Your task to perform on an android device: Empty the shopping cart on bestbuy. Image 0: 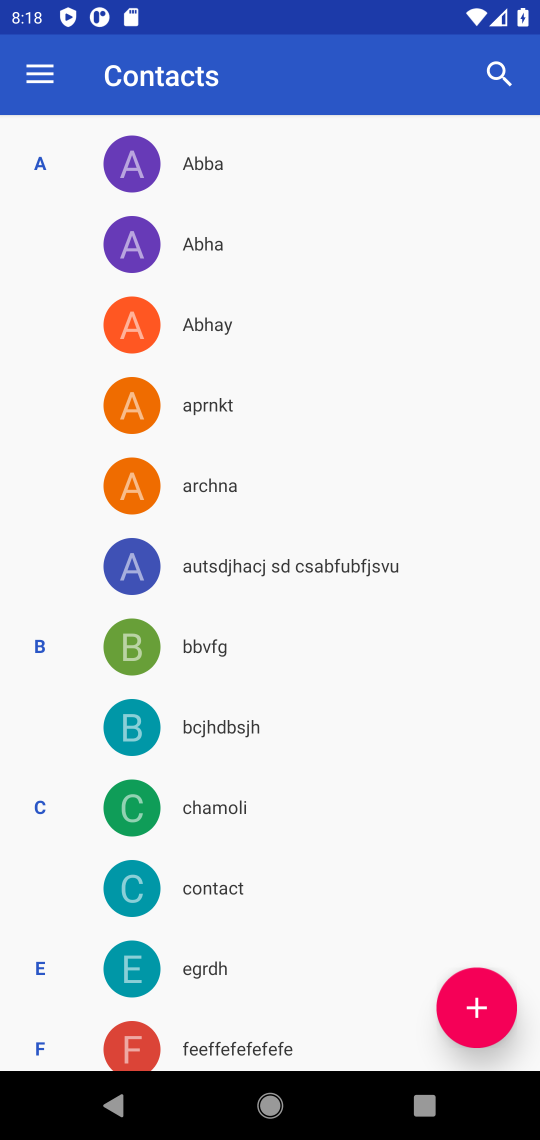
Step 0: press home button
Your task to perform on an android device: Empty the shopping cart on bestbuy. Image 1: 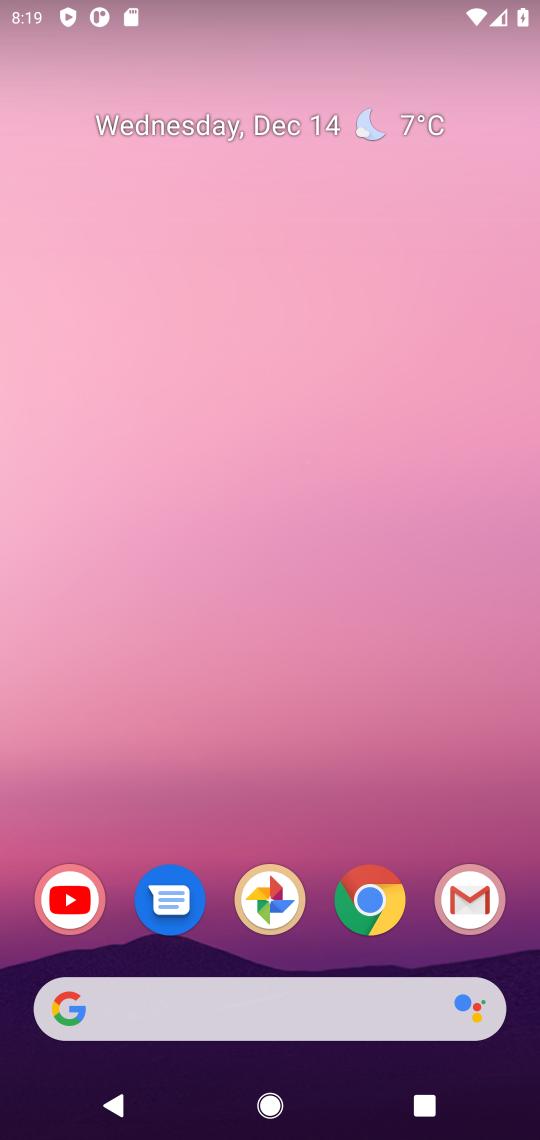
Step 1: click (254, 998)
Your task to perform on an android device: Empty the shopping cart on bestbuy. Image 2: 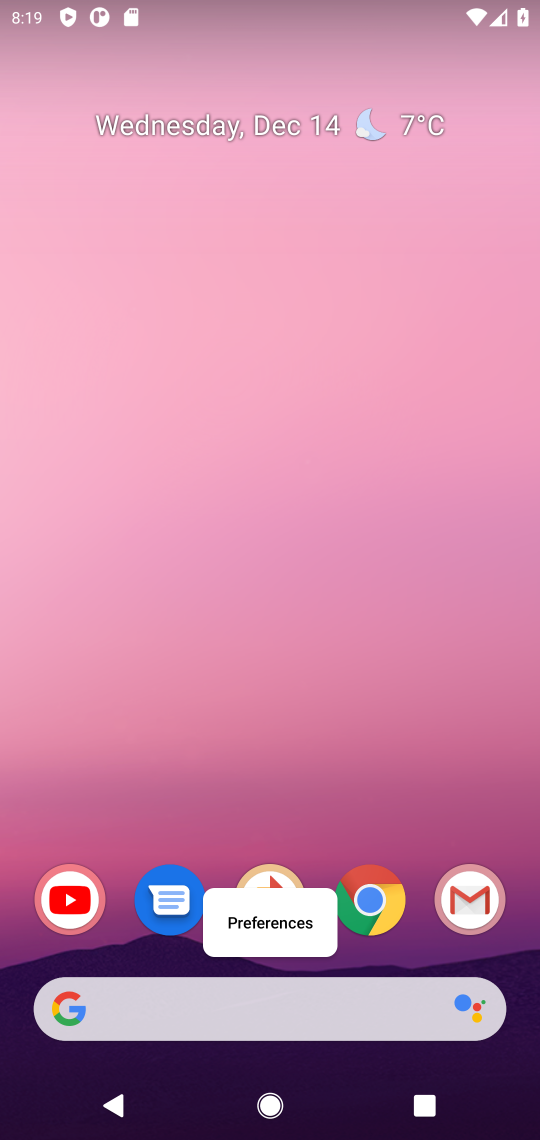
Step 2: click (267, 997)
Your task to perform on an android device: Empty the shopping cart on bestbuy. Image 3: 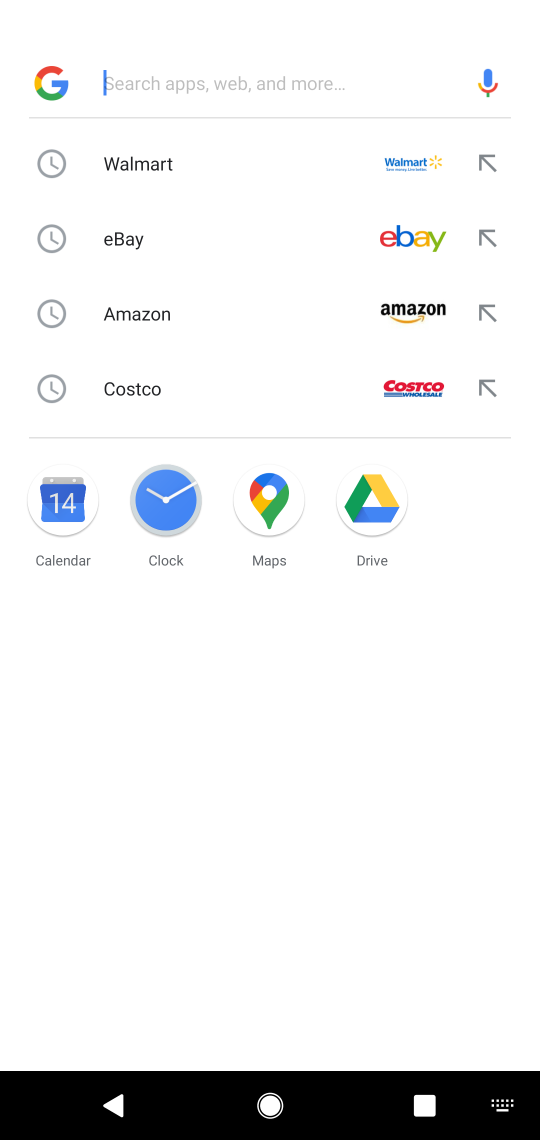
Step 3: type "bestbuy"
Your task to perform on an android device: Empty the shopping cart on bestbuy. Image 4: 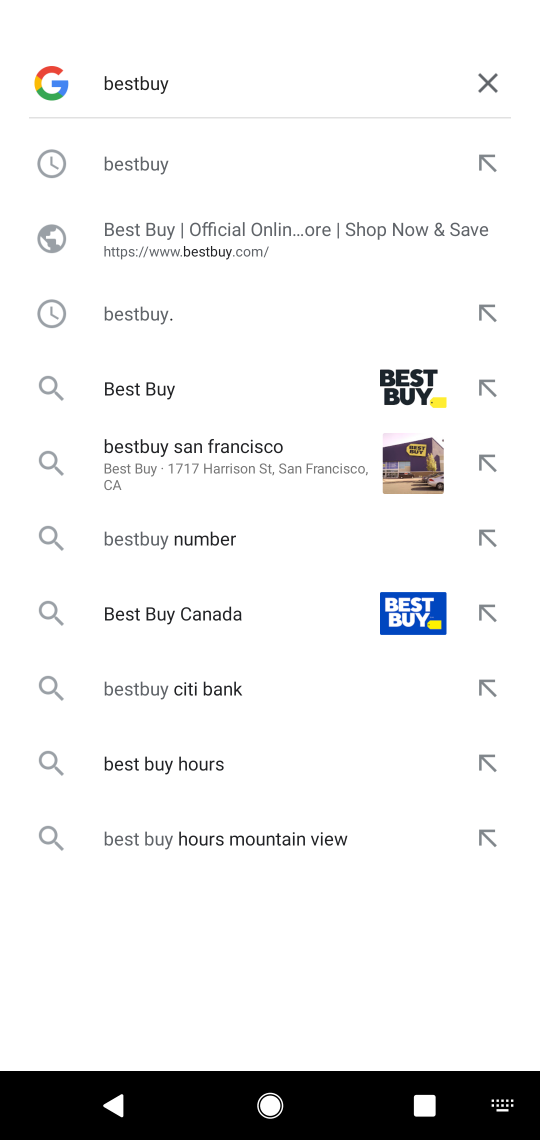
Step 4: type ""
Your task to perform on an android device: Empty the shopping cart on bestbuy. Image 5: 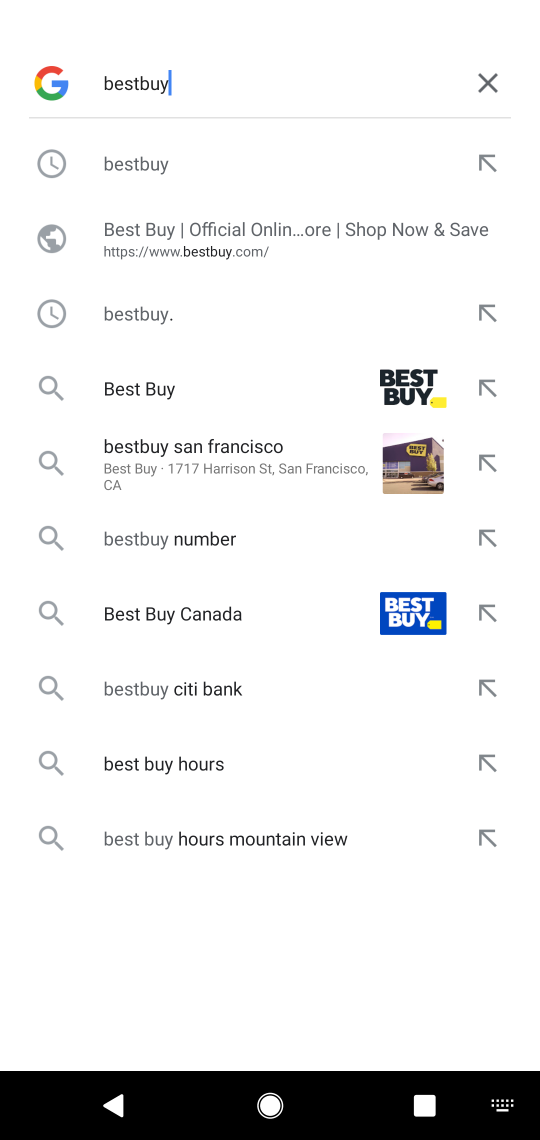
Step 5: click (167, 180)
Your task to perform on an android device: Empty the shopping cart on bestbuy. Image 6: 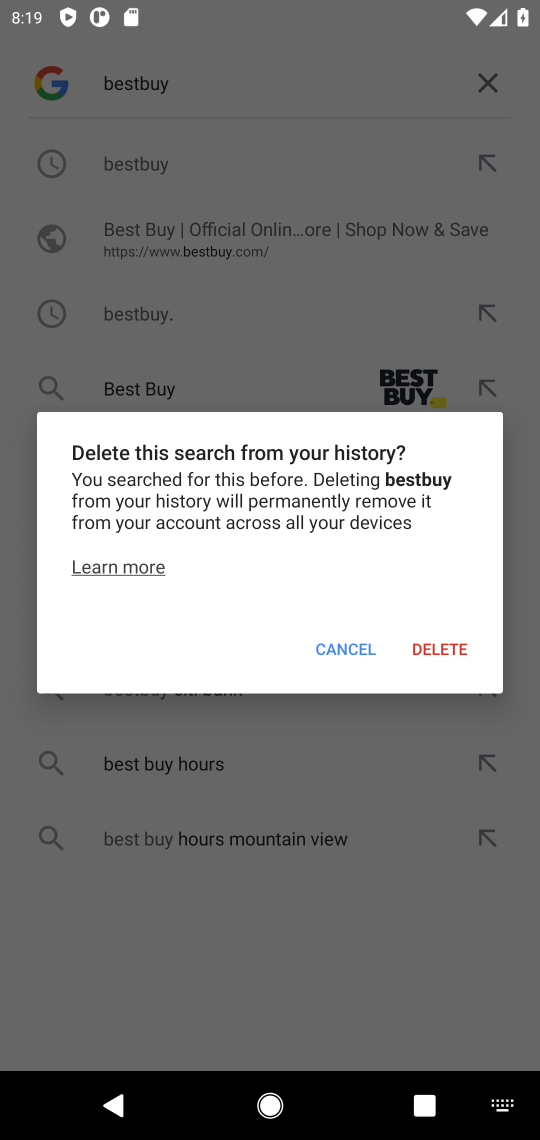
Step 6: click (352, 656)
Your task to perform on an android device: Empty the shopping cart on bestbuy. Image 7: 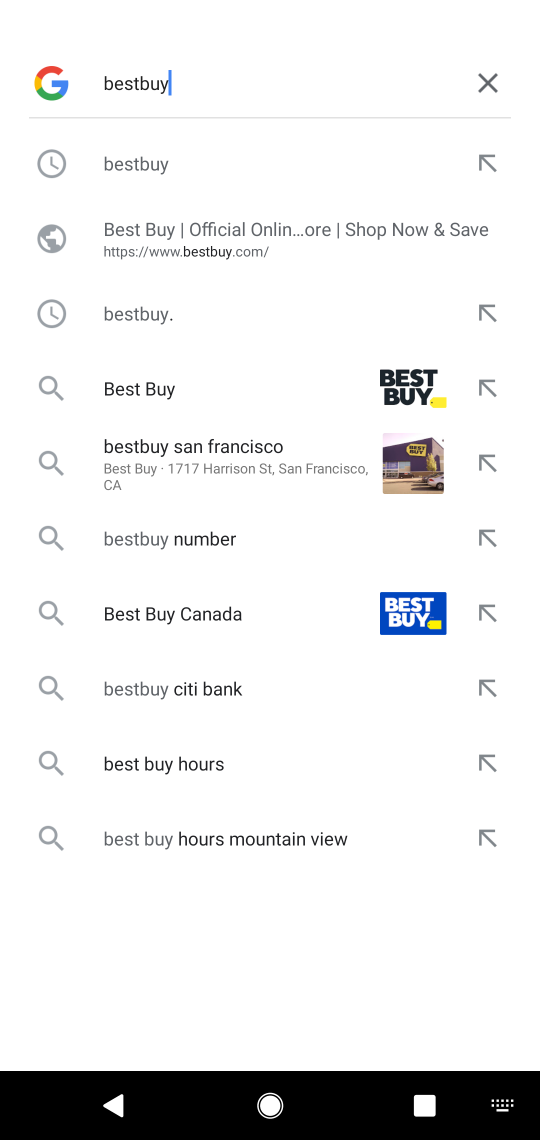
Step 7: click (155, 173)
Your task to perform on an android device: Empty the shopping cart on bestbuy. Image 8: 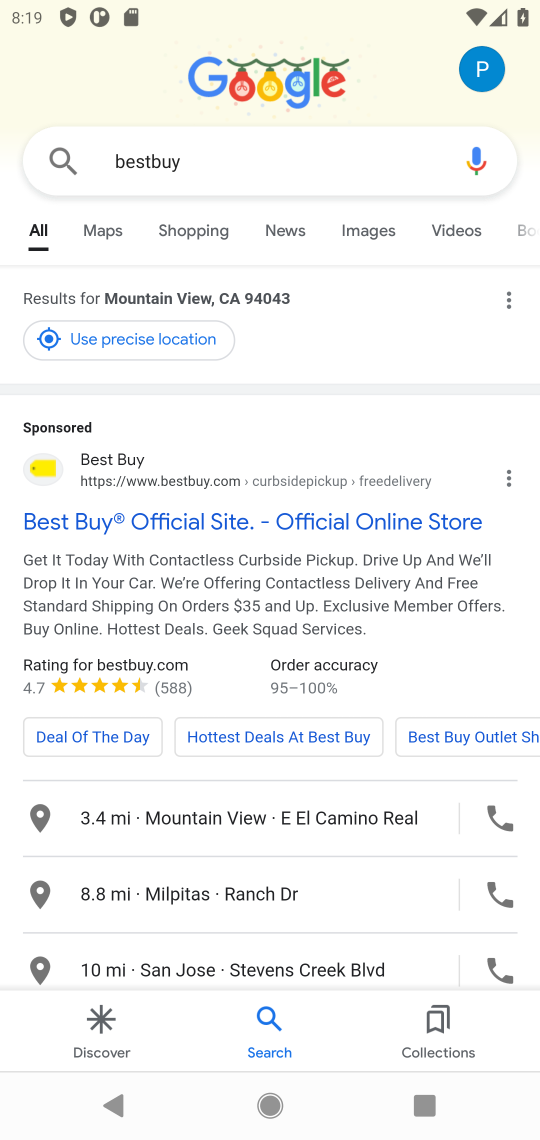
Step 8: click (186, 510)
Your task to perform on an android device: Empty the shopping cart on bestbuy. Image 9: 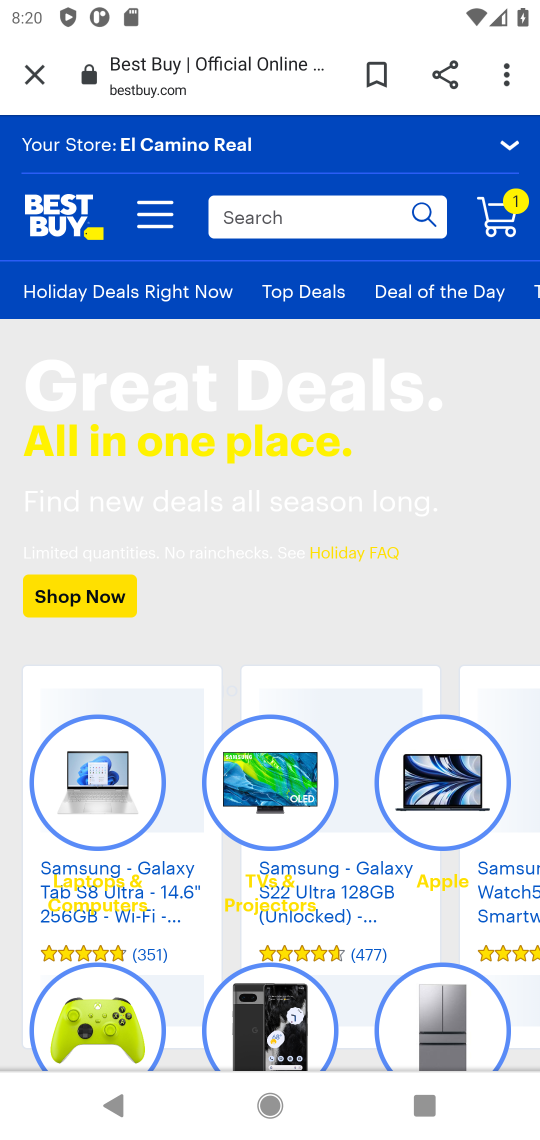
Step 9: click (491, 216)
Your task to perform on an android device: Empty the shopping cart on bestbuy. Image 10: 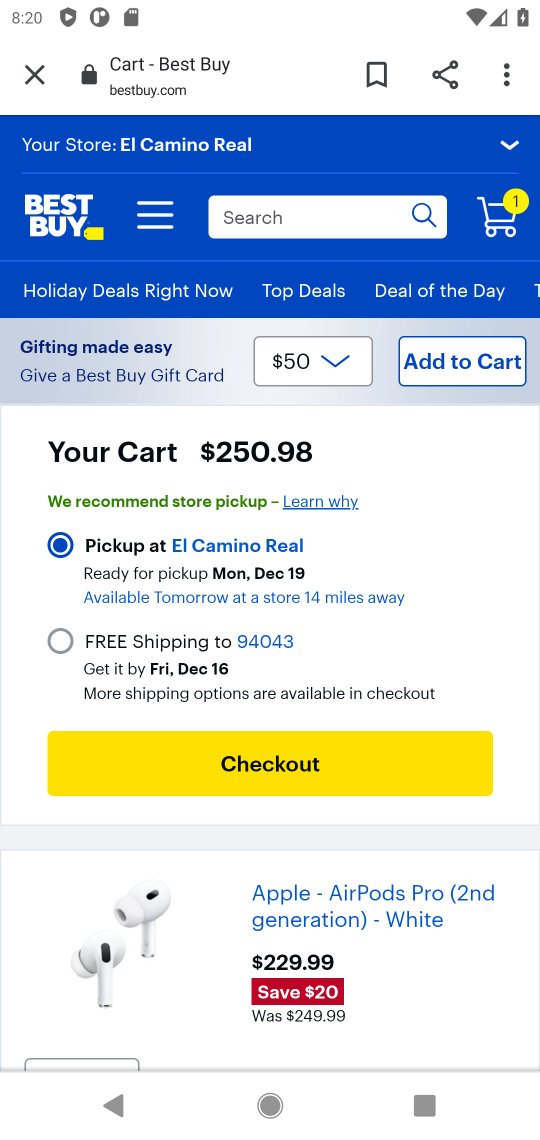
Step 10: drag from (380, 855) to (211, 327)
Your task to perform on an android device: Empty the shopping cart on bestbuy. Image 11: 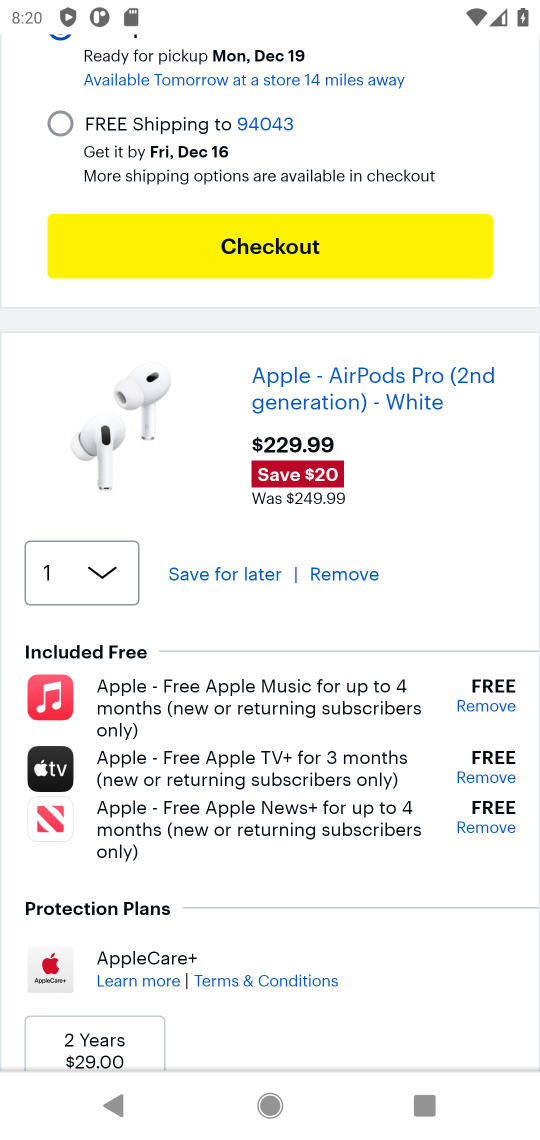
Step 11: click (341, 574)
Your task to perform on an android device: Empty the shopping cart on bestbuy. Image 12: 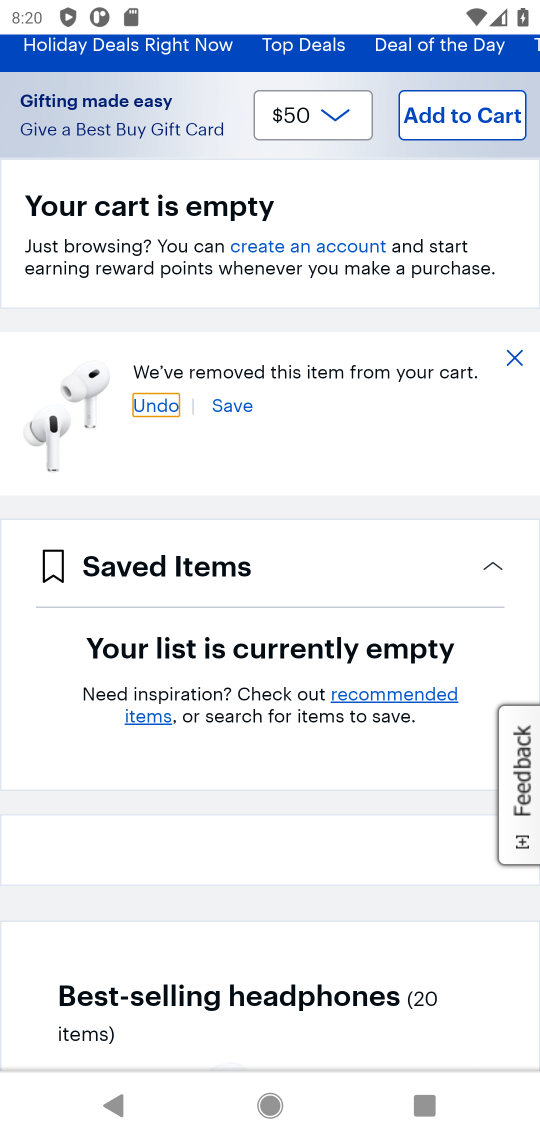
Step 12: task complete